Your task to perform on an android device: Open my contact list Image 0: 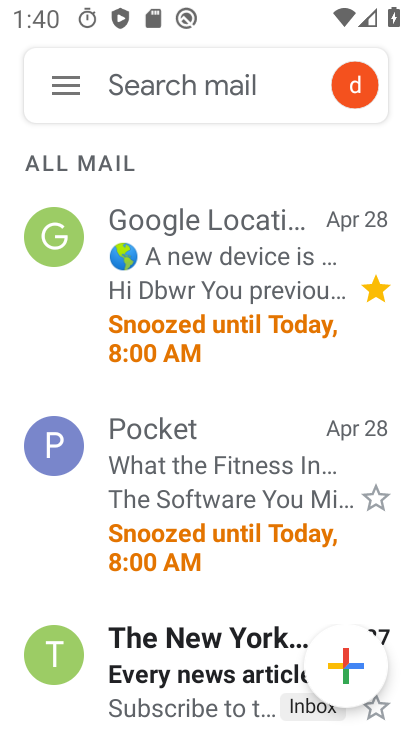
Step 0: press home button
Your task to perform on an android device: Open my contact list Image 1: 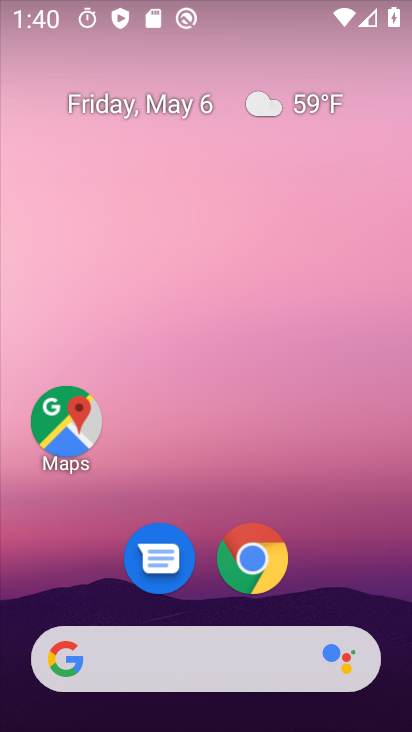
Step 1: drag from (206, 726) to (211, 218)
Your task to perform on an android device: Open my contact list Image 2: 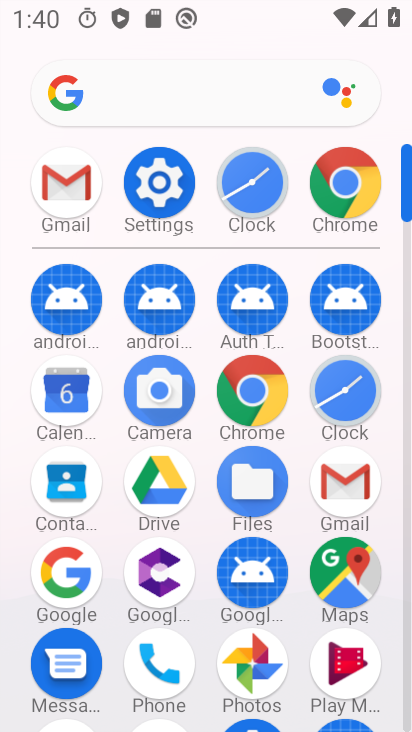
Step 2: click (52, 484)
Your task to perform on an android device: Open my contact list Image 3: 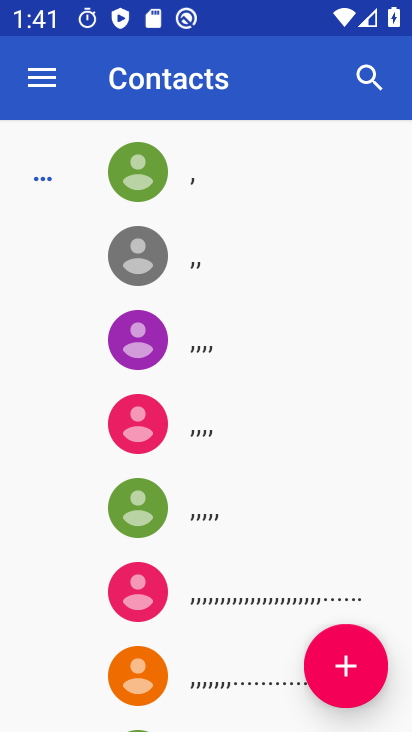
Step 3: task complete